Your task to perform on an android device: turn on improve location accuracy Image 0: 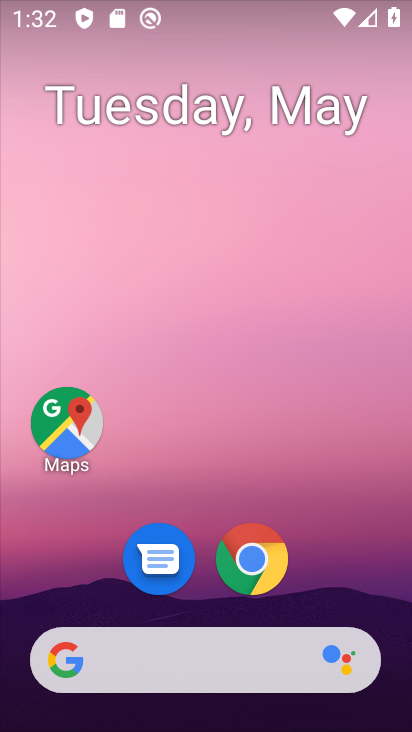
Step 0: drag from (393, 628) to (237, 1)
Your task to perform on an android device: turn on improve location accuracy Image 1: 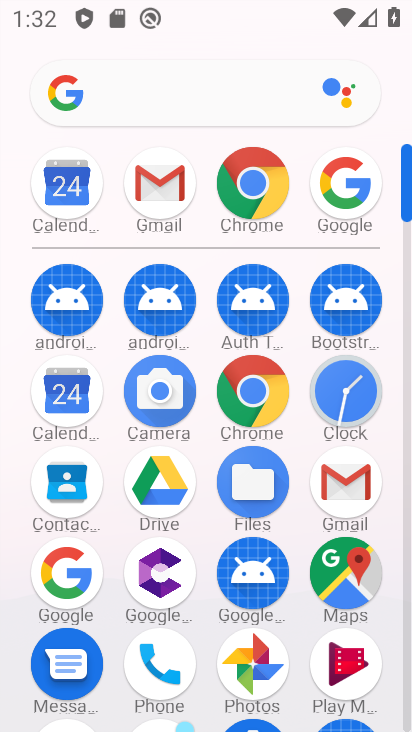
Step 1: drag from (217, 619) to (195, 186)
Your task to perform on an android device: turn on improve location accuracy Image 2: 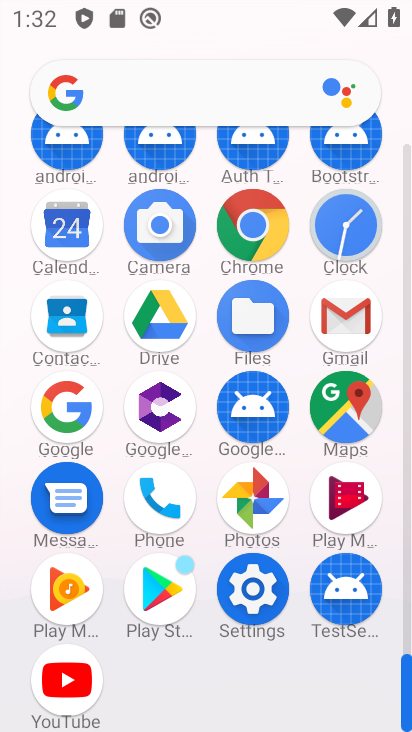
Step 2: click (251, 582)
Your task to perform on an android device: turn on improve location accuracy Image 3: 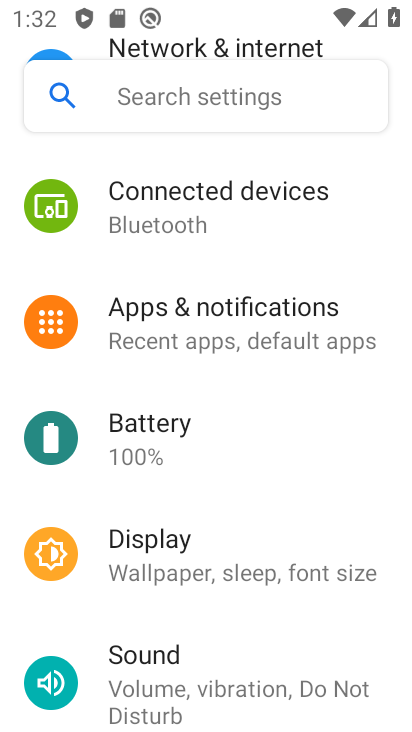
Step 3: drag from (172, 662) to (231, 290)
Your task to perform on an android device: turn on improve location accuracy Image 4: 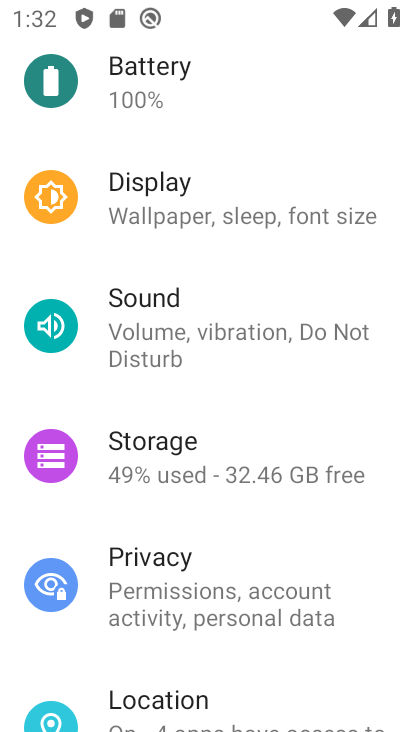
Step 4: click (176, 714)
Your task to perform on an android device: turn on improve location accuracy Image 5: 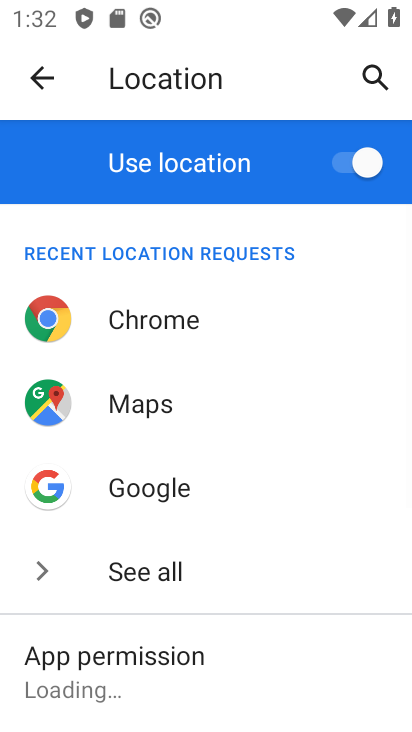
Step 5: drag from (162, 652) to (164, 290)
Your task to perform on an android device: turn on improve location accuracy Image 6: 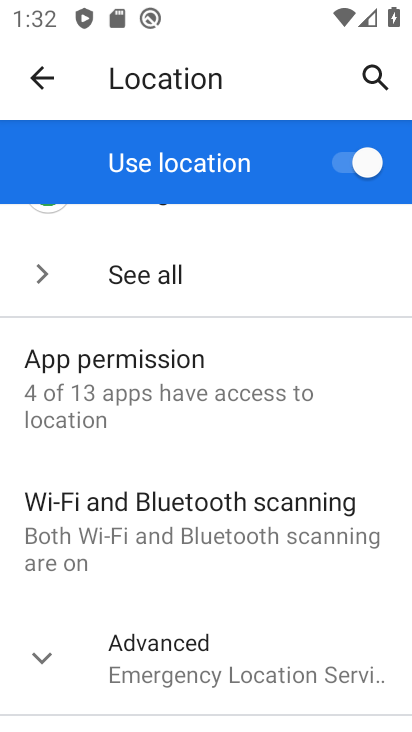
Step 6: click (145, 646)
Your task to perform on an android device: turn on improve location accuracy Image 7: 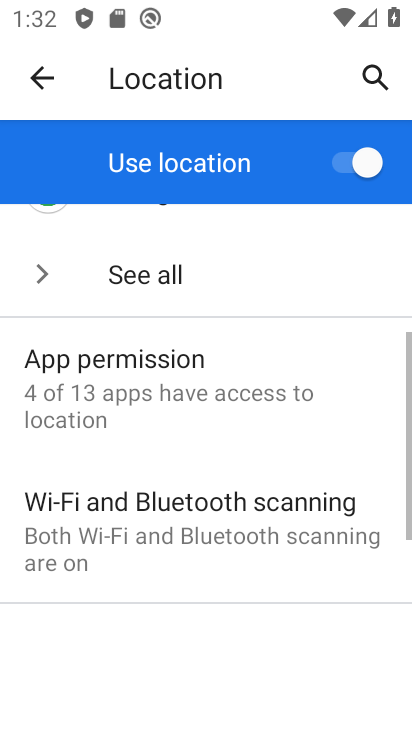
Step 7: drag from (162, 665) to (268, 294)
Your task to perform on an android device: turn on improve location accuracy Image 8: 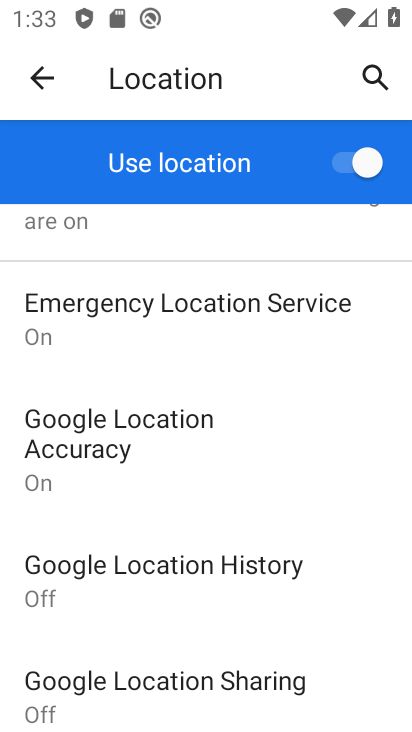
Step 8: click (176, 451)
Your task to perform on an android device: turn on improve location accuracy Image 9: 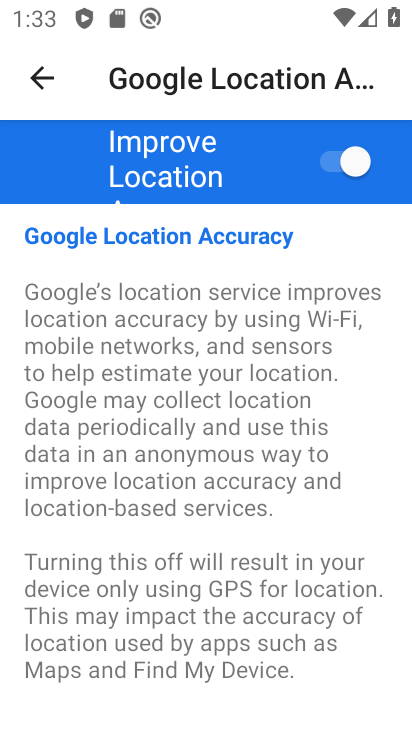
Step 9: task complete